Your task to perform on an android device: change your default location settings in chrome Image 0: 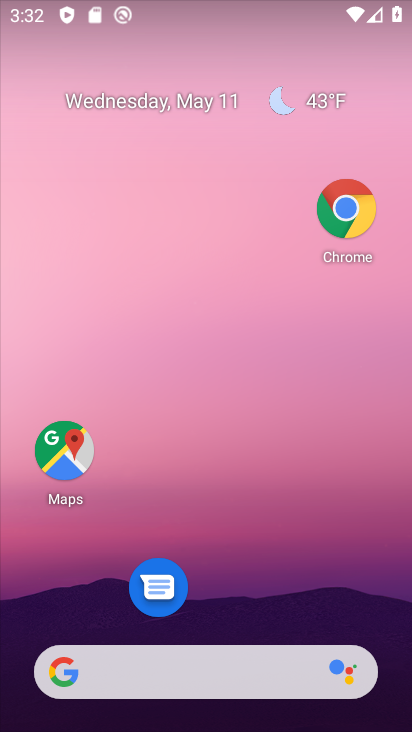
Step 0: click (339, 228)
Your task to perform on an android device: change your default location settings in chrome Image 1: 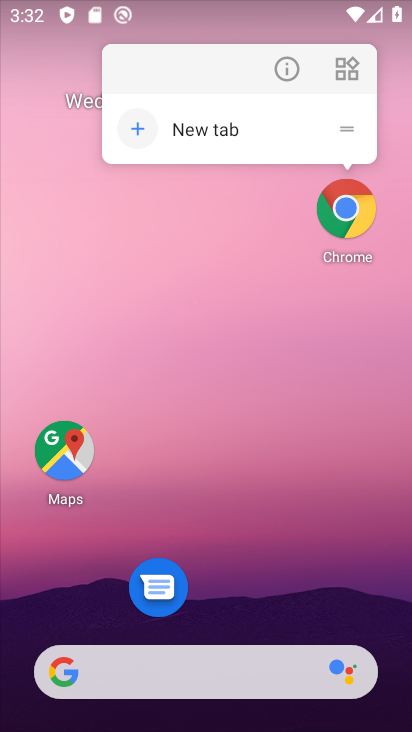
Step 1: click (341, 230)
Your task to perform on an android device: change your default location settings in chrome Image 2: 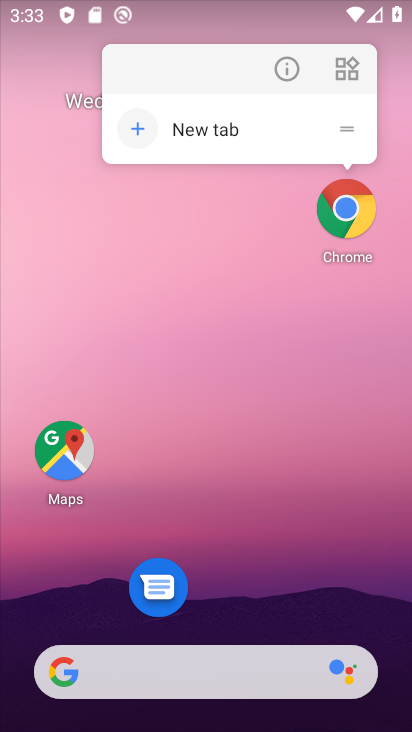
Step 2: click (334, 229)
Your task to perform on an android device: change your default location settings in chrome Image 3: 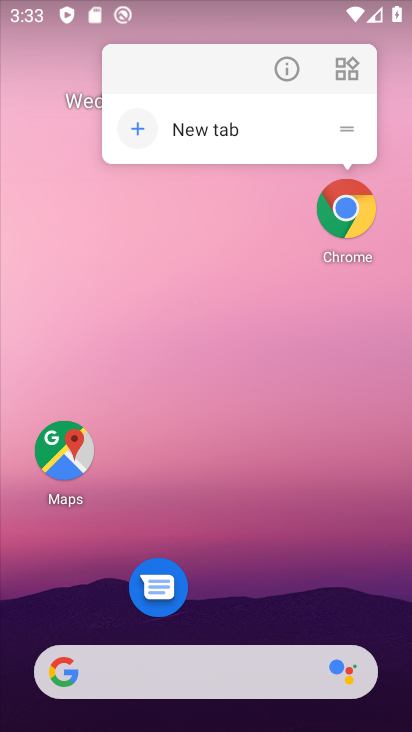
Step 3: click (334, 229)
Your task to perform on an android device: change your default location settings in chrome Image 4: 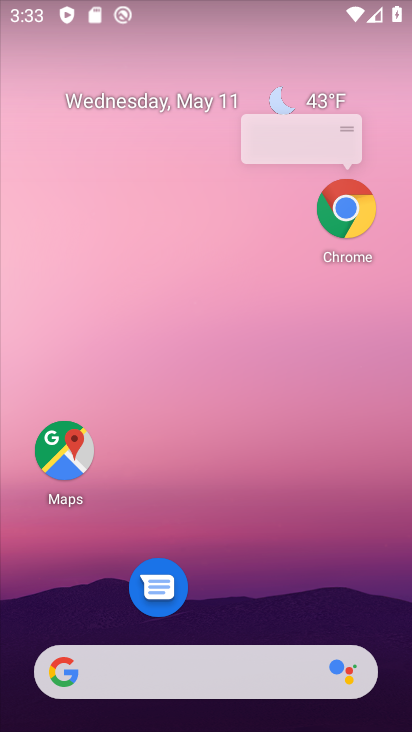
Step 4: click (334, 229)
Your task to perform on an android device: change your default location settings in chrome Image 5: 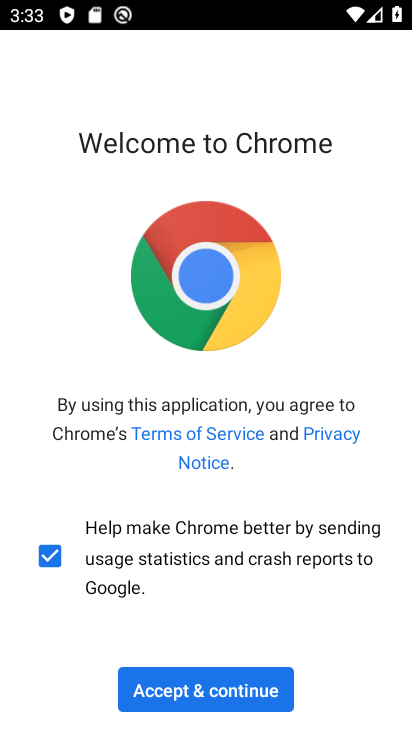
Step 5: click (174, 686)
Your task to perform on an android device: change your default location settings in chrome Image 6: 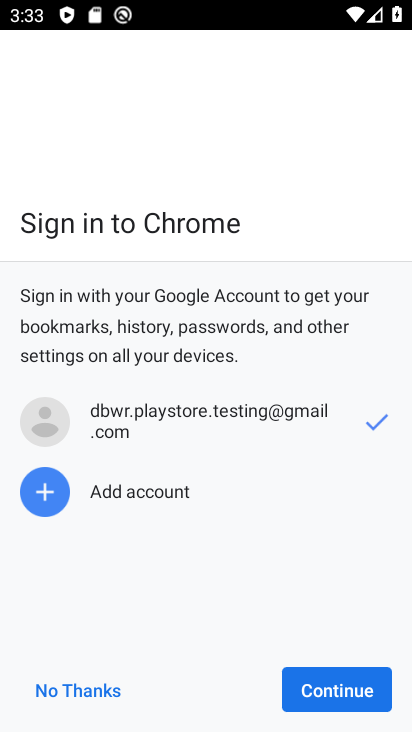
Step 6: click (60, 696)
Your task to perform on an android device: change your default location settings in chrome Image 7: 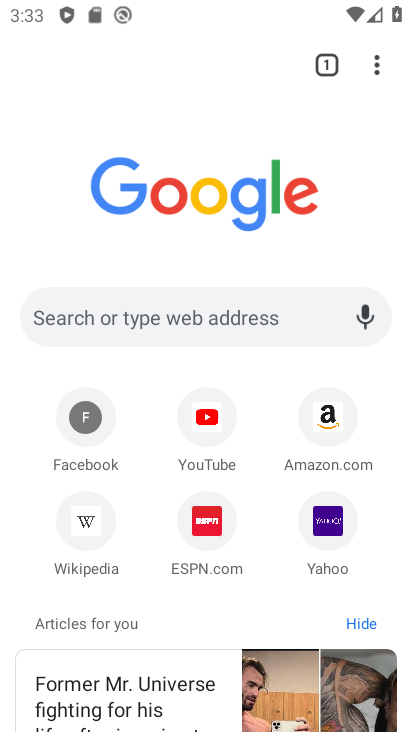
Step 7: click (373, 65)
Your task to perform on an android device: change your default location settings in chrome Image 8: 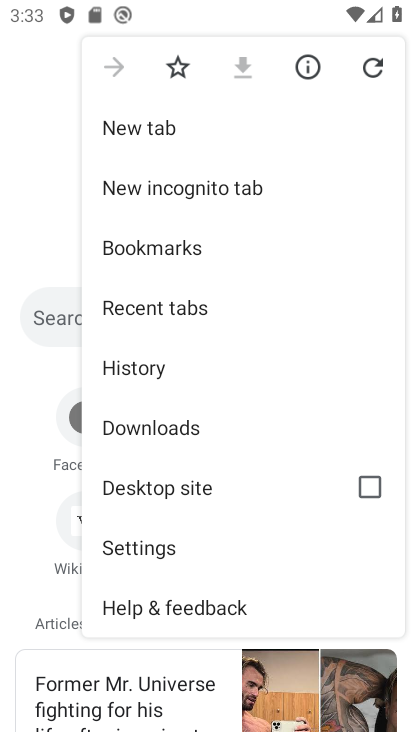
Step 8: click (183, 550)
Your task to perform on an android device: change your default location settings in chrome Image 9: 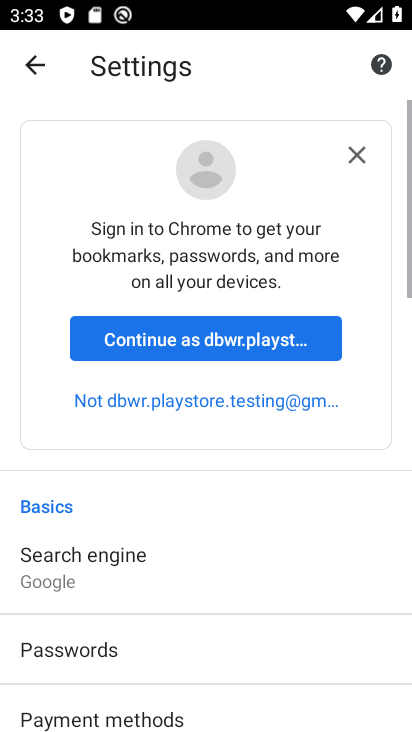
Step 9: drag from (165, 634) to (187, 255)
Your task to perform on an android device: change your default location settings in chrome Image 10: 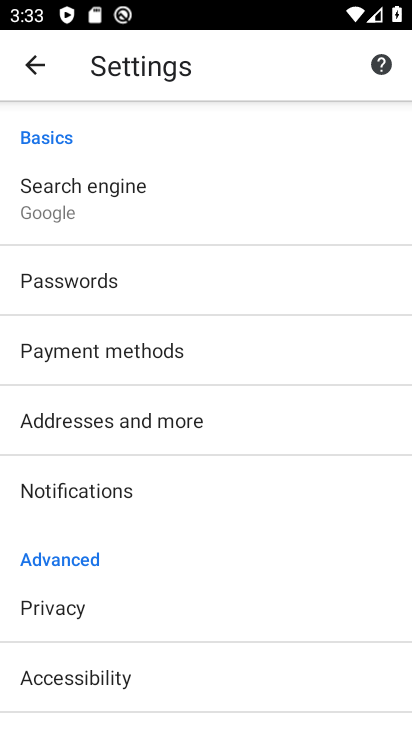
Step 10: drag from (179, 601) to (178, 469)
Your task to perform on an android device: change your default location settings in chrome Image 11: 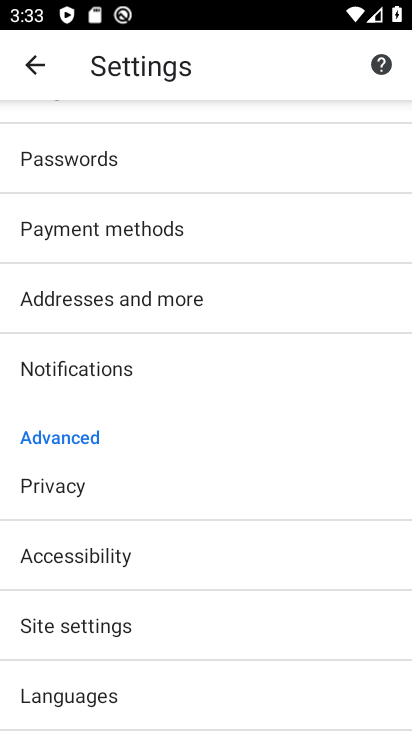
Step 11: click (167, 637)
Your task to perform on an android device: change your default location settings in chrome Image 12: 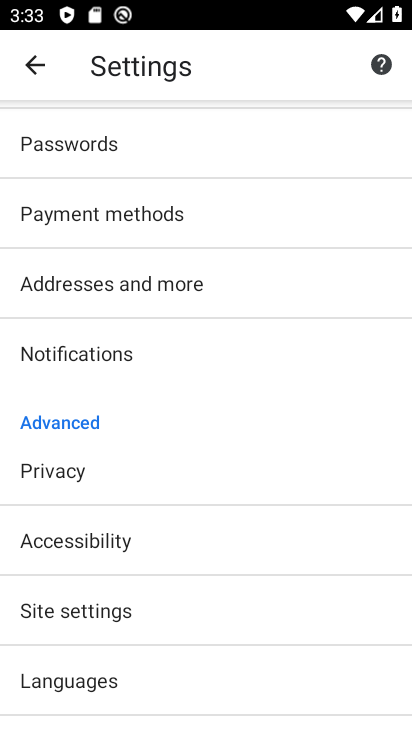
Step 12: click (175, 612)
Your task to perform on an android device: change your default location settings in chrome Image 13: 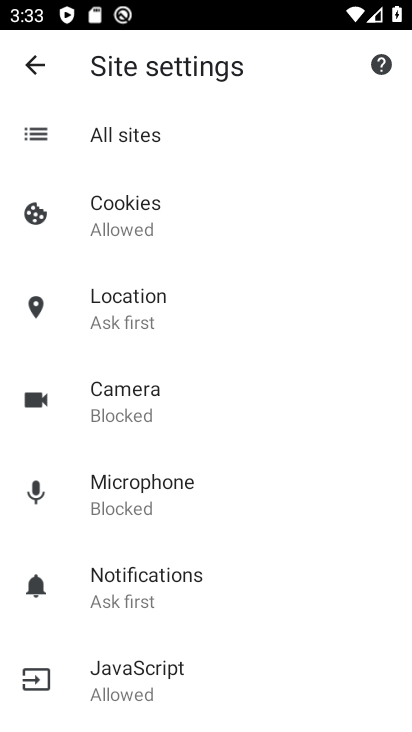
Step 13: drag from (263, 610) to (389, 173)
Your task to perform on an android device: change your default location settings in chrome Image 14: 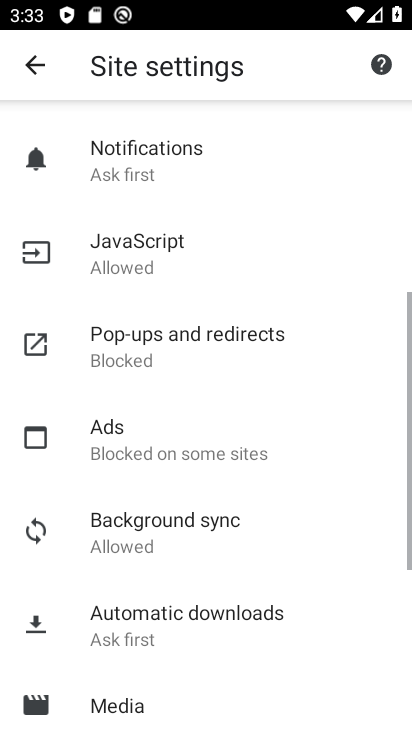
Step 14: drag from (286, 569) to (385, 120)
Your task to perform on an android device: change your default location settings in chrome Image 15: 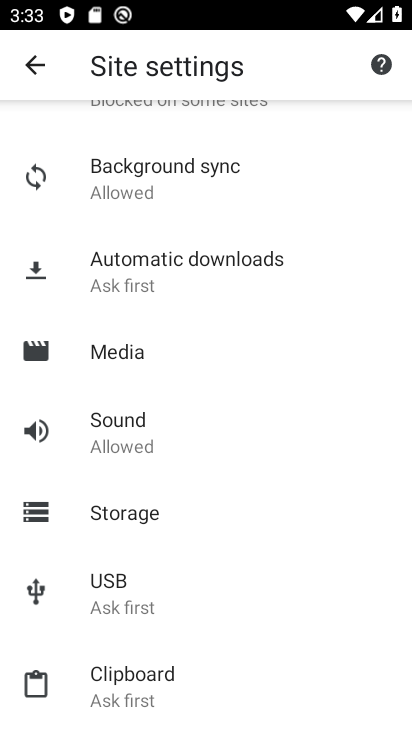
Step 15: click (43, 67)
Your task to perform on an android device: change your default location settings in chrome Image 16: 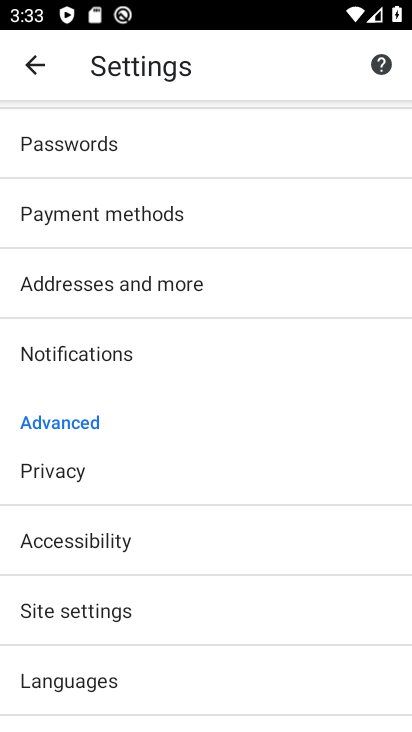
Step 16: task complete